Your task to perform on an android device: turn on notifications settings in the gmail app Image 0: 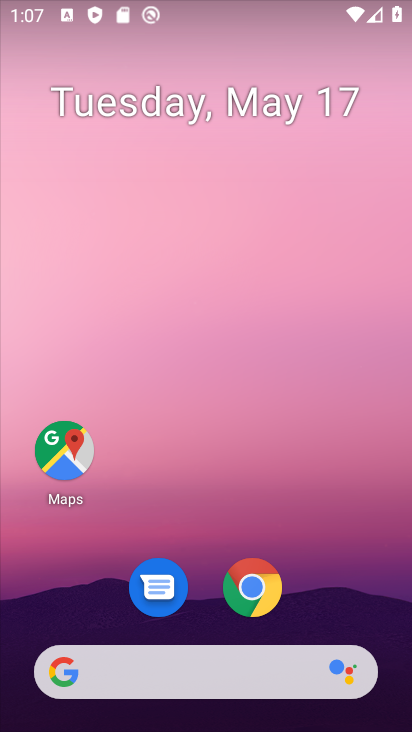
Step 0: drag from (208, 625) to (216, 93)
Your task to perform on an android device: turn on notifications settings in the gmail app Image 1: 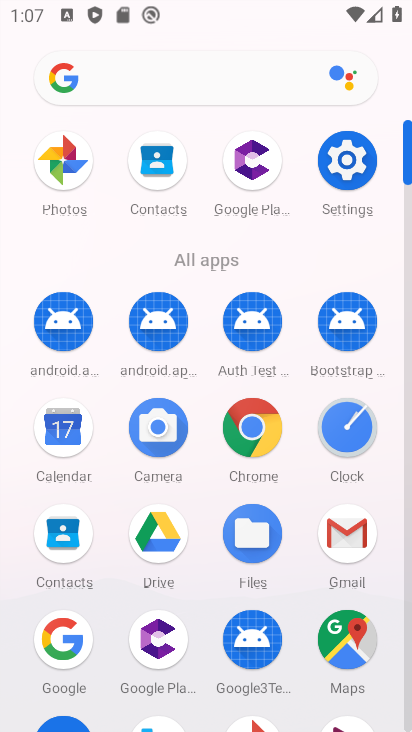
Step 1: click (364, 531)
Your task to perform on an android device: turn on notifications settings in the gmail app Image 2: 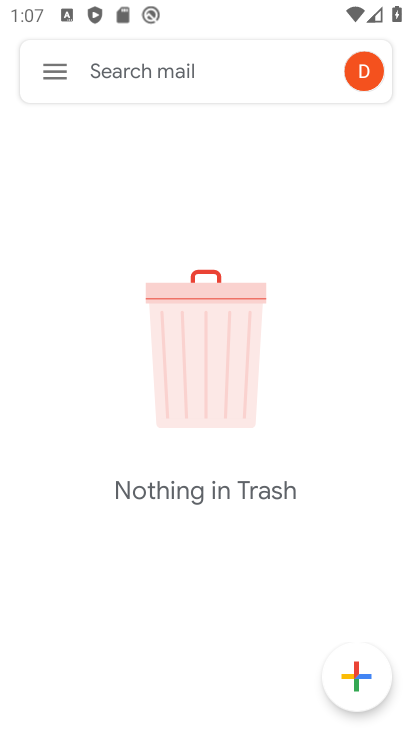
Step 2: click (63, 59)
Your task to perform on an android device: turn on notifications settings in the gmail app Image 3: 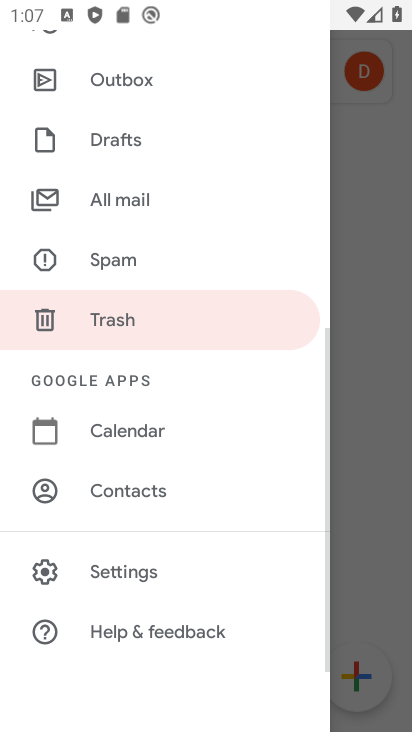
Step 3: click (137, 578)
Your task to perform on an android device: turn on notifications settings in the gmail app Image 4: 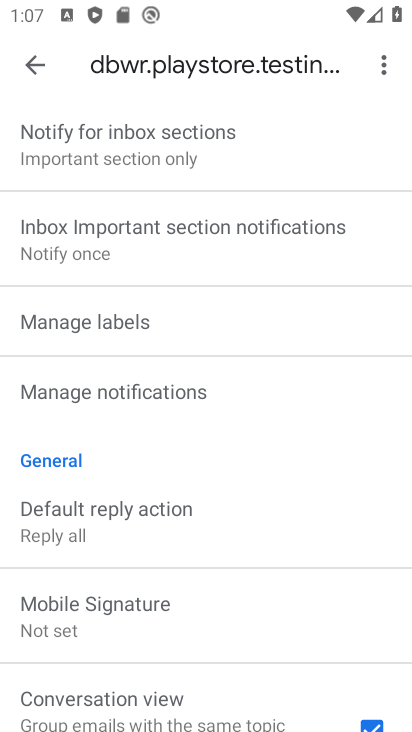
Step 4: click (216, 380)
Your task to perform on an android device: turn on notifications settings in the gmail app Image 5: 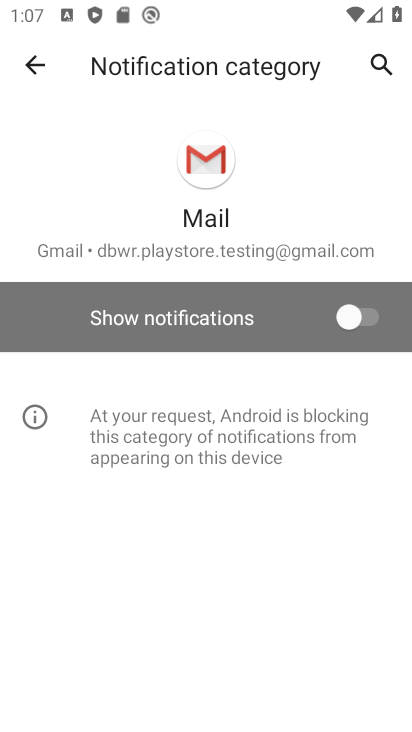
Step 5: click (359, 311)
Your task to perform on an android device: turn on notifications settings in the gmail app Image 6: 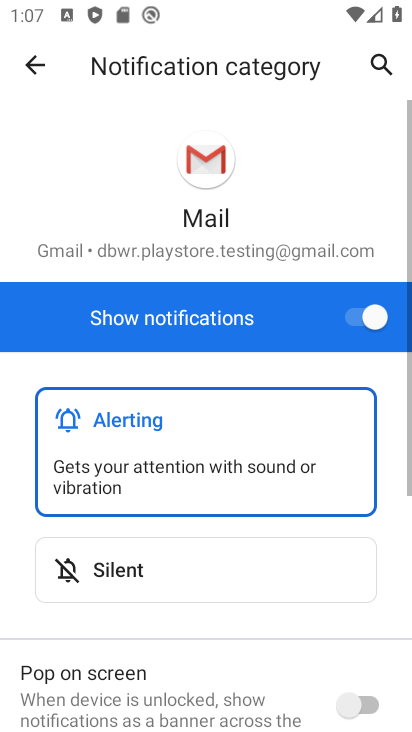
Step 6: task complete